Your task to perform on an android device: Play the last video I watched on Youtube Image 0: 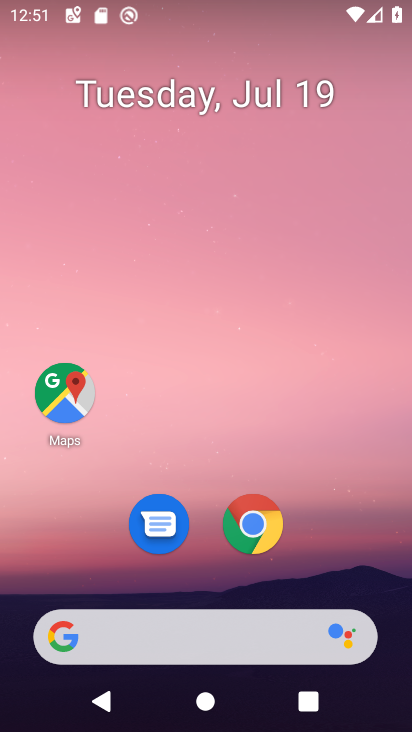
Step 0: drag from (356, 540) to (270, 52)
Your task to perform on an android device: Play the last video I watched on Youtube Image 1: 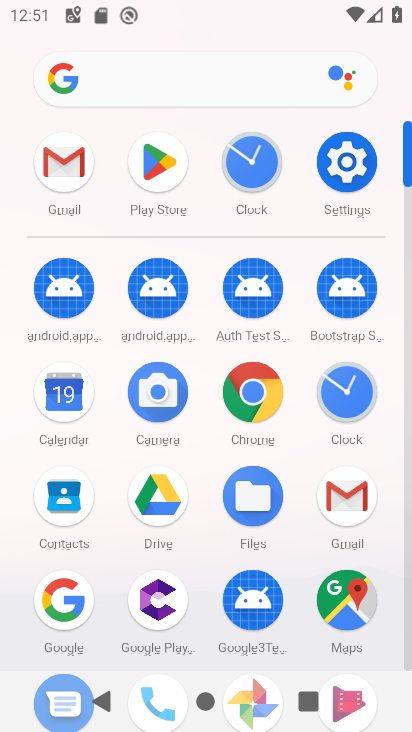
Step 1: drag from (199, 559) to (211, 137)
Your task to perform on an android device: Play the last video I watched on Youtube Image 2: 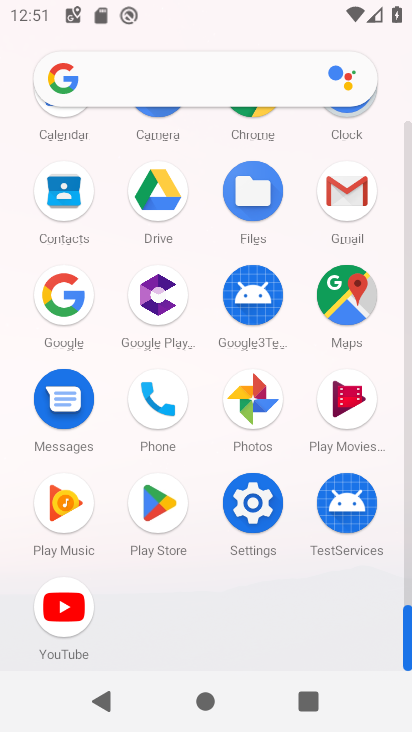
Step 2: click (65, 612)
Your task to perform on an android device: Play the last video I watched on Youtube Image 3: 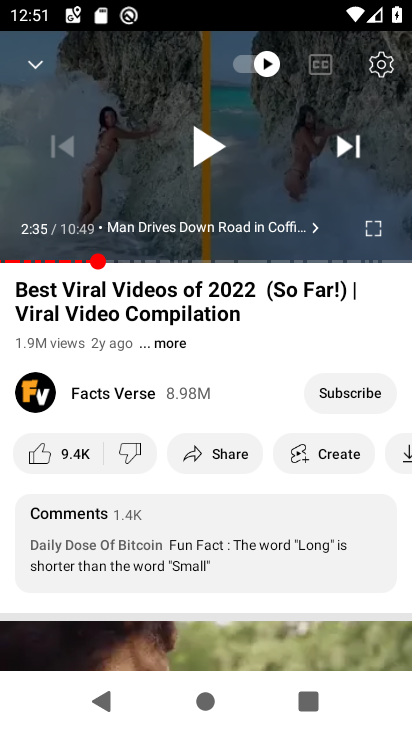
Step 3: press back button
Your task to perform on an android device: Play the last video I watched on Youtube Image 4: 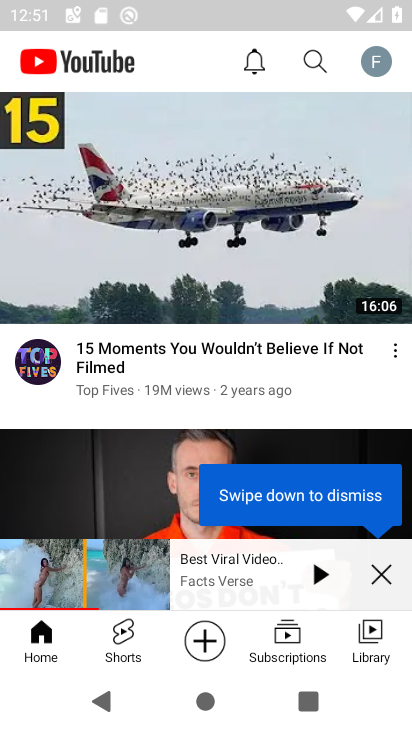
Step 4: click (370, 640)
Your task to perform on an android device: Play the last video I watched on Youtube Image 5: 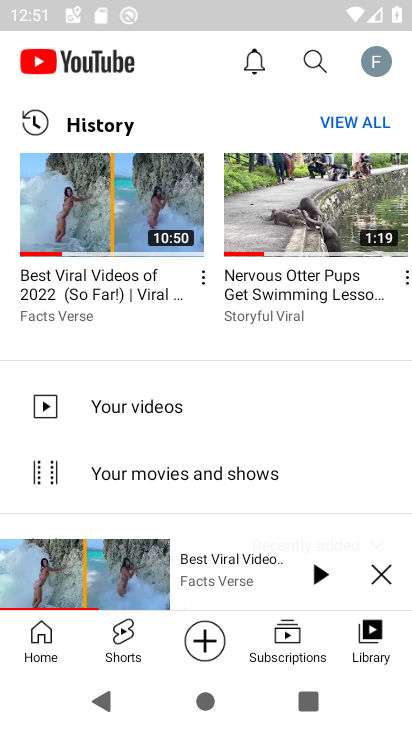
Step 5: click (143, 197)
Your task to perform on an android device: Play the last video I watched on Youtube Image 6: 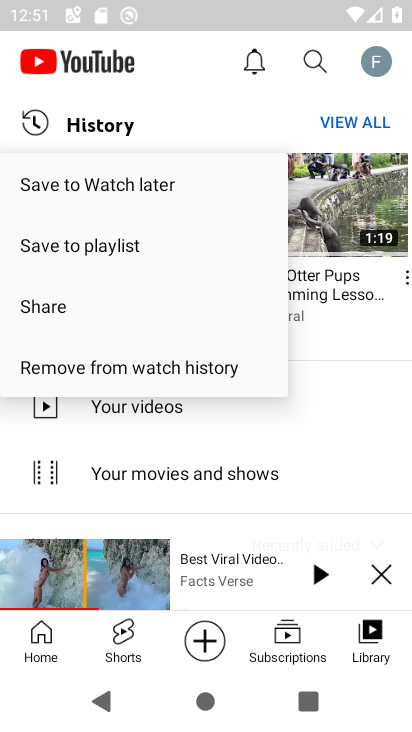
Step 6: click (336, 433)
Your task to perform on an android device: Play the last video I watched on Youtube Image 7: 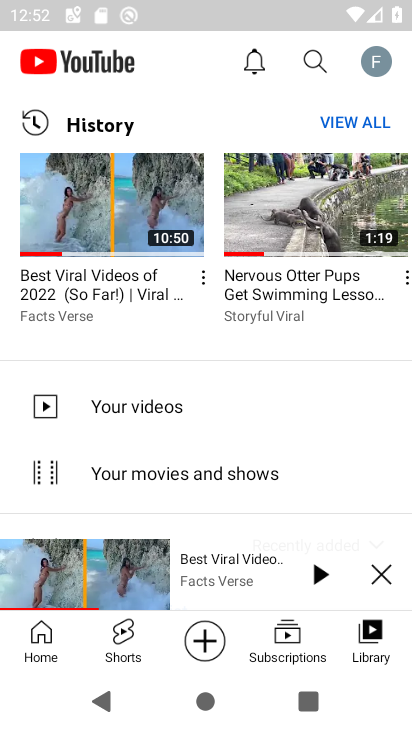
Step 7: click (148, 193)
Your task to perform on an android device: Play the last video I watched on Youtube Image 8: 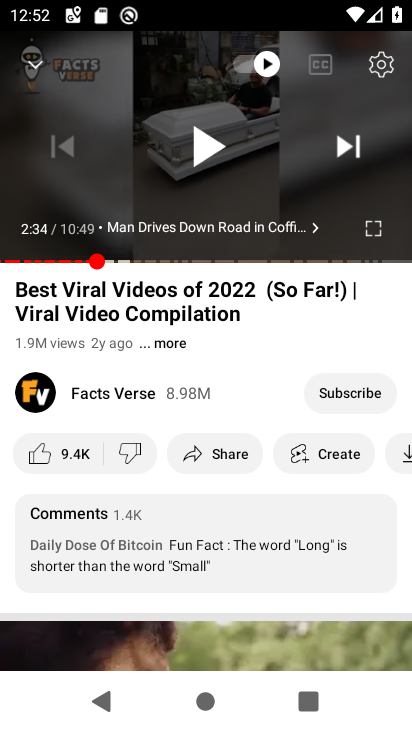
Step 8: click (197, 138)
Your task to perform on an android device: Play the last video I watched on Youtube Image 9: 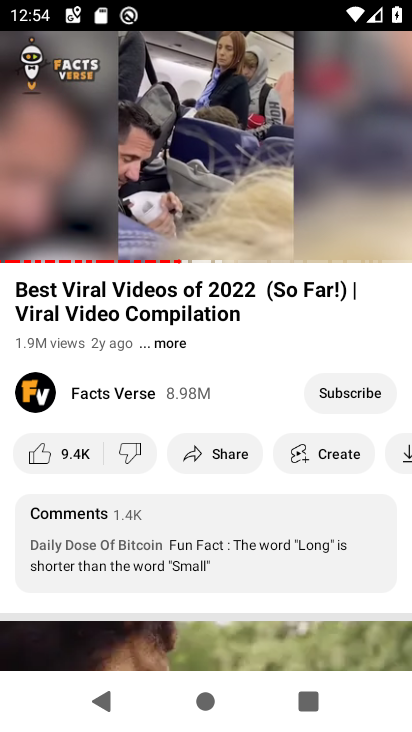
Step 9: task complete